Your task to perform on an android device: change notifications settings Image 0: 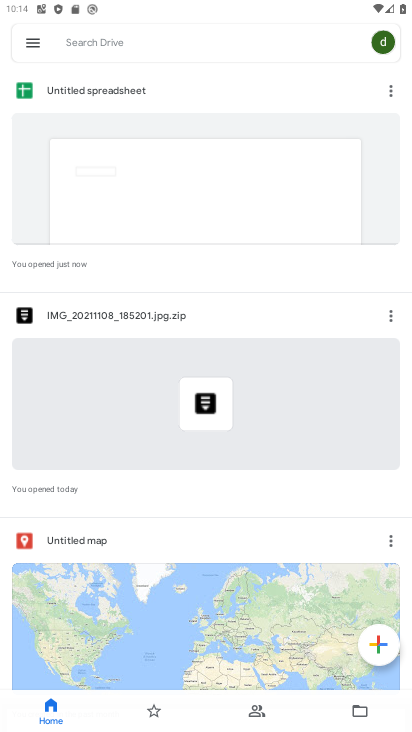
Step 0: press home button
Your task to perform on an android device: change notifications settings Image 1: 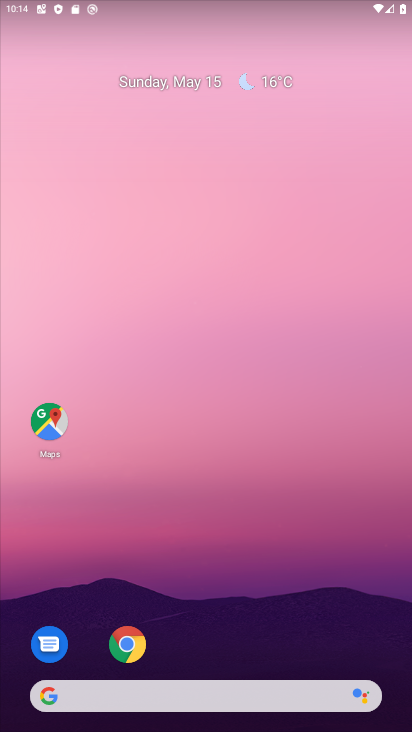
Step 1: drag from (306, 635) to (266, 0)
Your task to perform on an android device: change notifications settings Image 2: 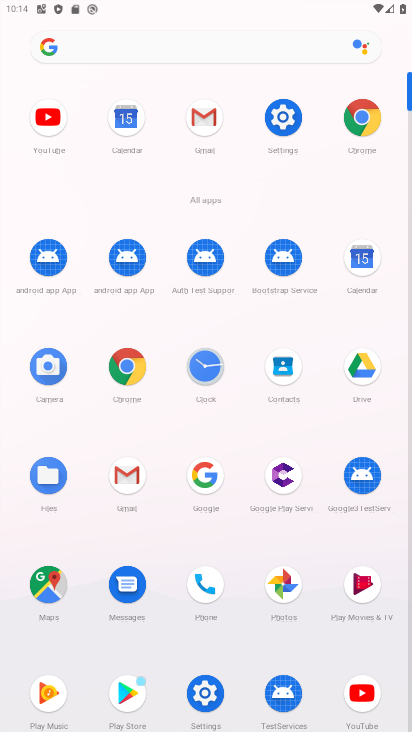
Step 2: click (203, 691)
Your task to perform on an android device: change notifications settings Image 3: 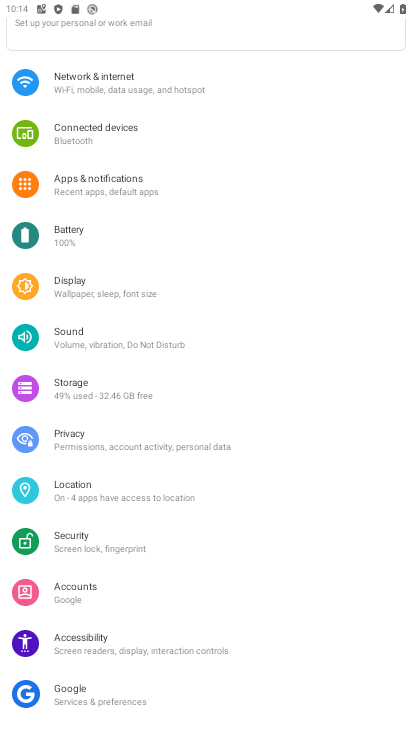
Step 3: click (108, 180)
Your task to perform on an android device: change notifications settings Image 4: 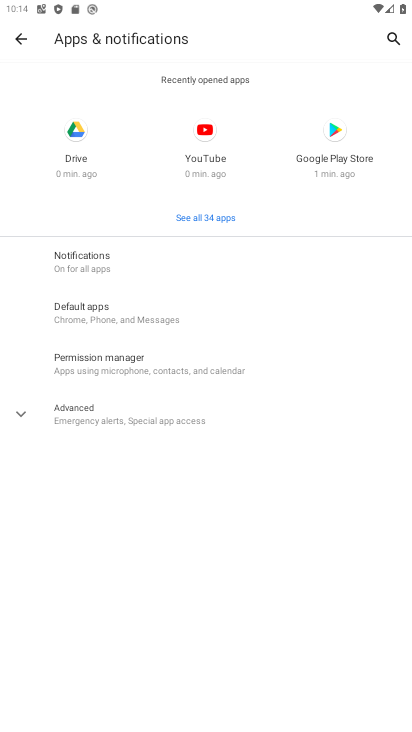
Step 4: click (135, 264)
Your task to perform on an android device: change notifications settings Image 5: 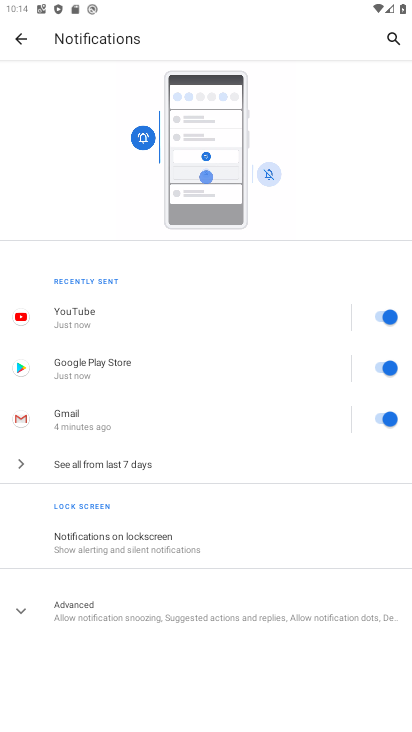
Step 5: click (229, 624)
Your task to perform on an android device: change notifications settings Image 6: 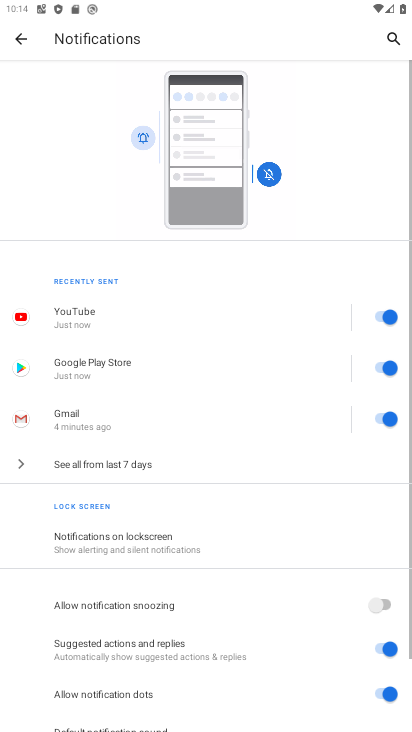
Step 6: drag from (229, 623) to (224, 311)
Your task to perform on an android device: change notifications settings Image 7: 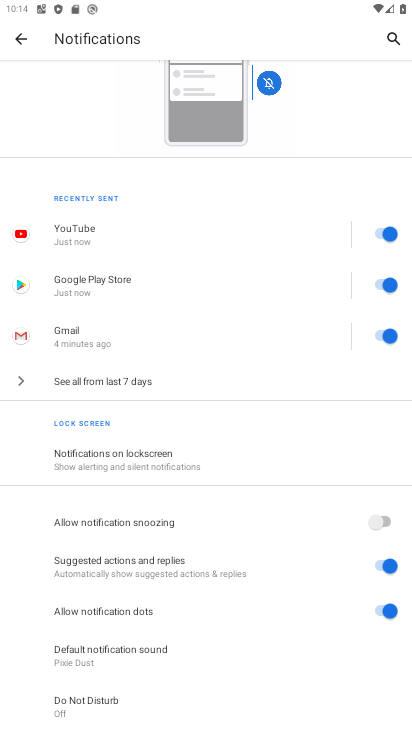
Step 7: click (376, 528)
Your task to perform on an android device: change notifications settings Image 8: 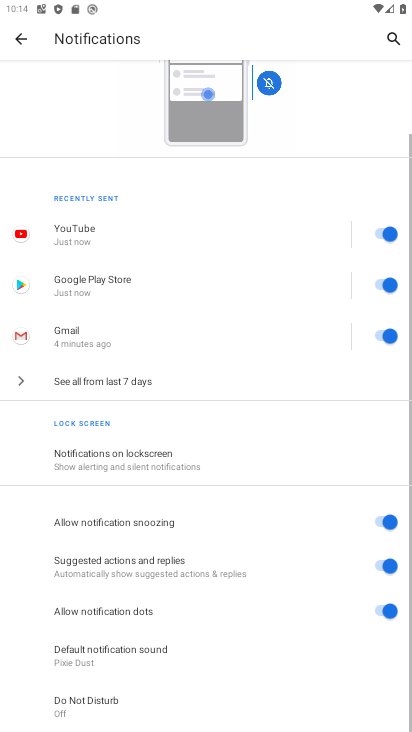
Step 8: click (392, 608)
Your task to perform on an android device: change notifications settings Image 9: 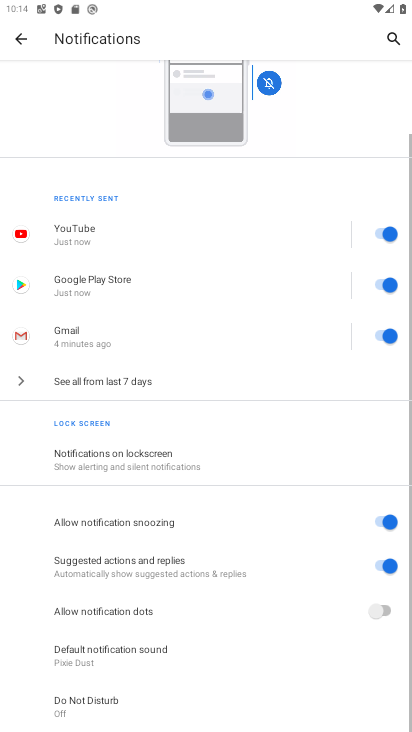
Step 9: click (394, 566)
Your task to perform on an android device: change notifications settings Image 10: 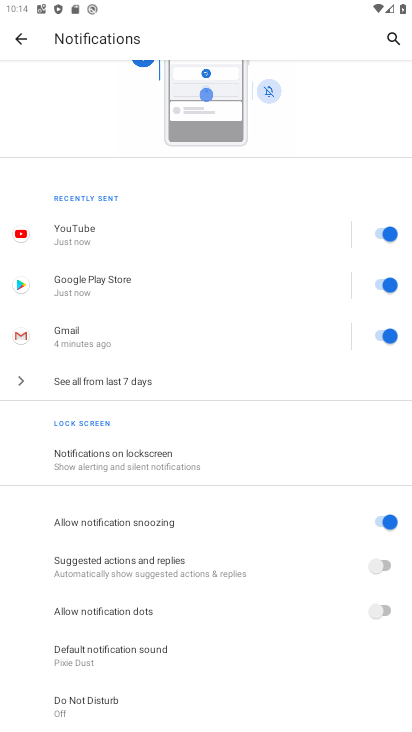
Step 10: task complete